Your task to perform on an android device: delete a single message in the gmail app Image 0: 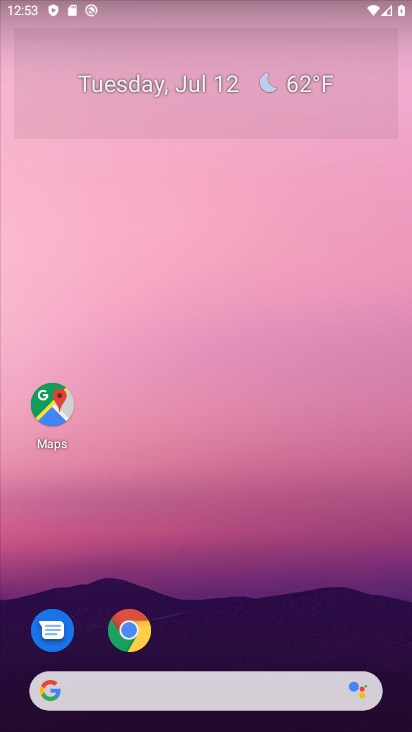
Step 0: drag from (231, 635) to (243, 89)
Your task to perform on an android device: delete a single message in the gmail app Image 1: 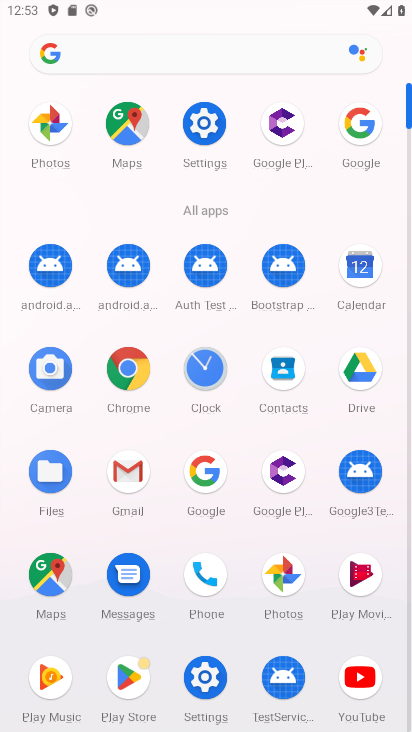
Step 1: click (125, 472)
Your task to perform on an android device: delete a single message in the gmail app Image 2: 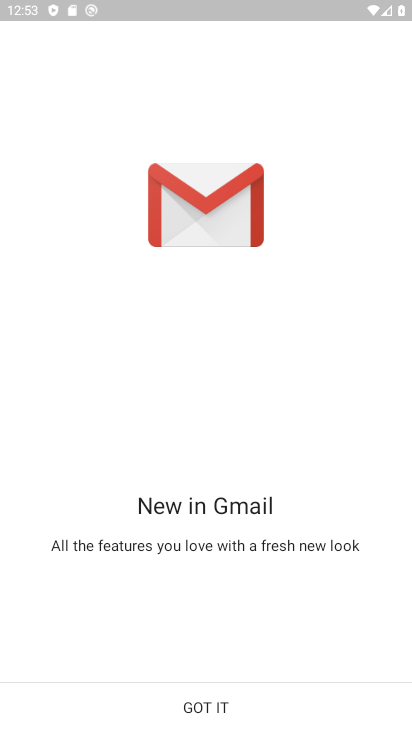
Step 2: click (235, 696)
Your task to perform on an android device: delete a single message in the gmail app Image 3: 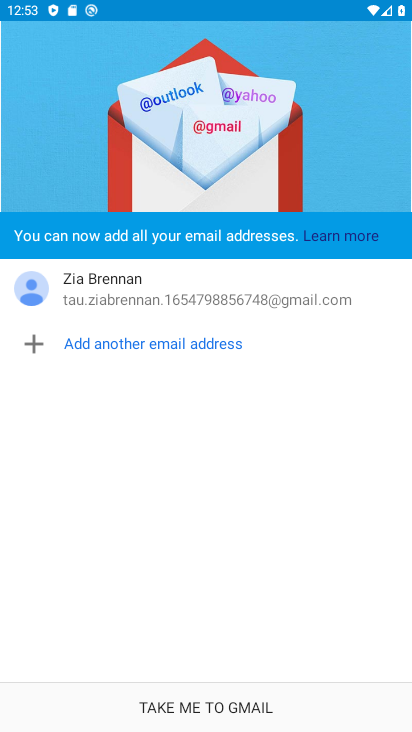
Step 3: click (224, 706)
Your task to perform on an android device: delete a single message in the gmail app Image 4: 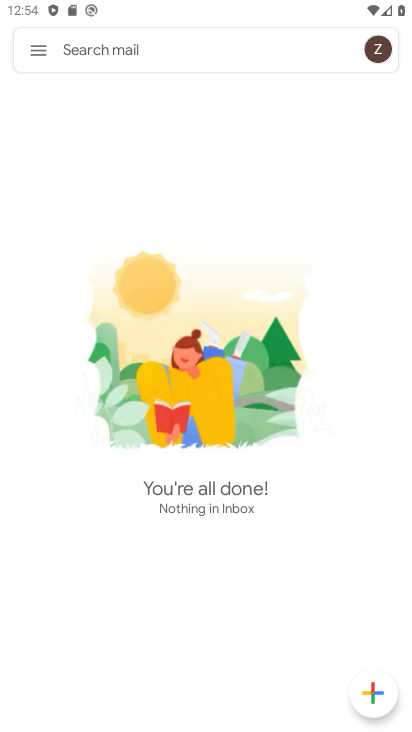
Step 4: task complete